Your task to perform on an android device: change the clock style Image 0: 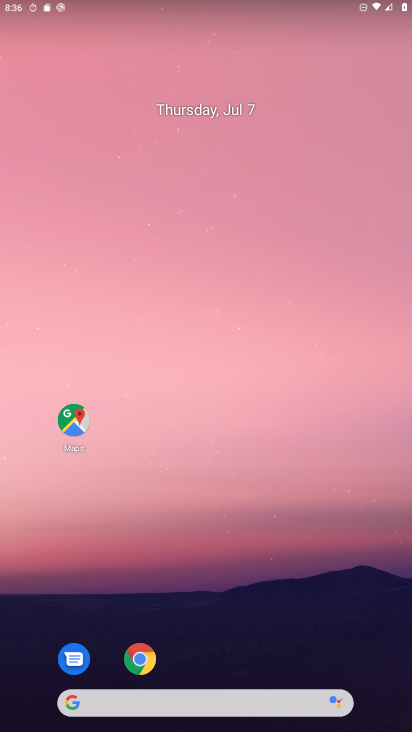
Step 0: drag from (365, 701) to (225, 16)
Your task to perform on an android device: change the clock style Image 1: 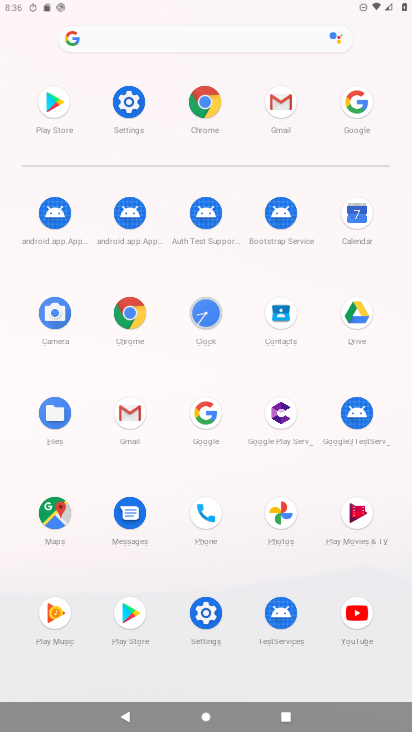
Step 1: click (120, 108)
Your task to perform on an android device: change the clock style Image 2: 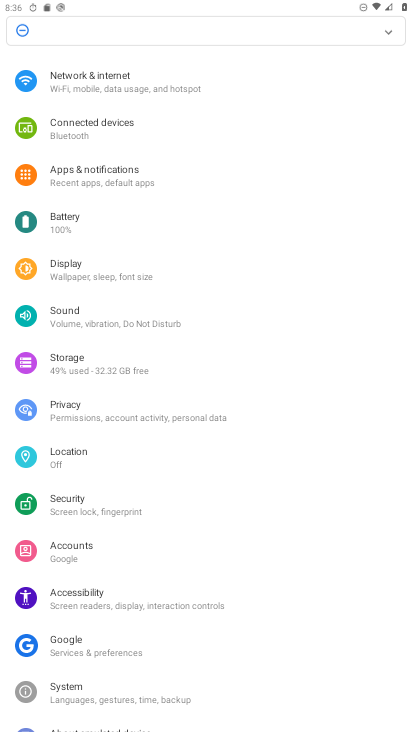
Step 2: press home button
Your task to perform on an android device: change the clock style Image 3: 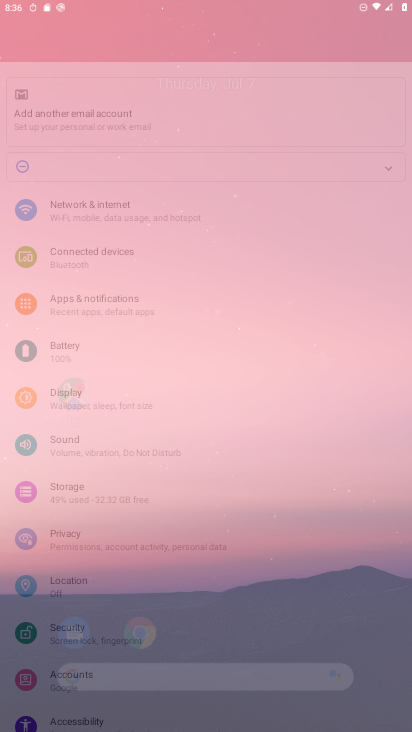
Step 3: drag from (335, 691) to (195, 45)
Your task to perform on an android device: change the clock style Image 4: 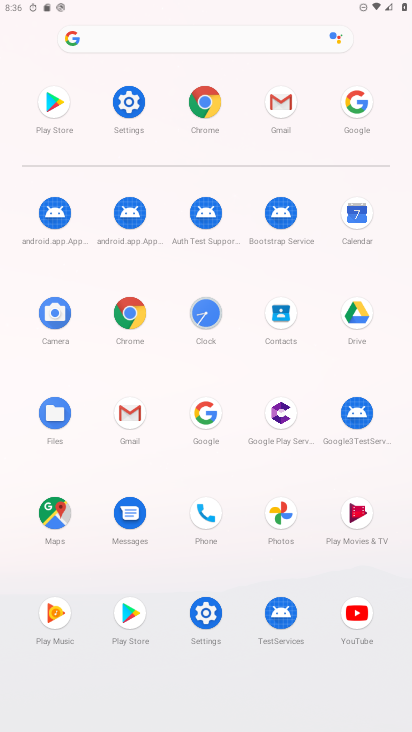
Step 4: click (196, 319)
Your task to perform on an android device: change the clock style Image 5: 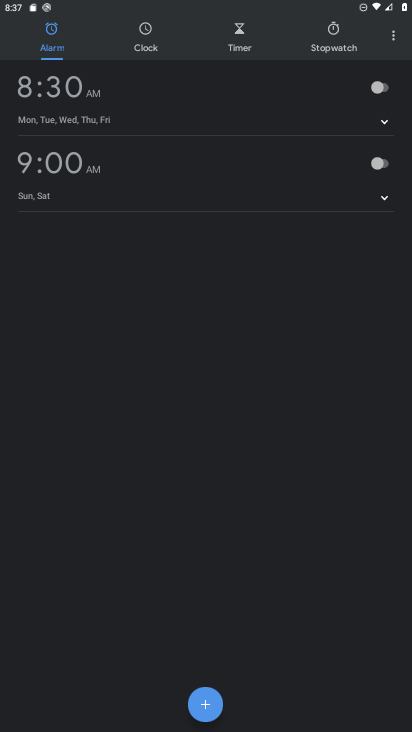
Step 5: click (395, 35)
Your task to perform on an android device: change the clock style Image 6: 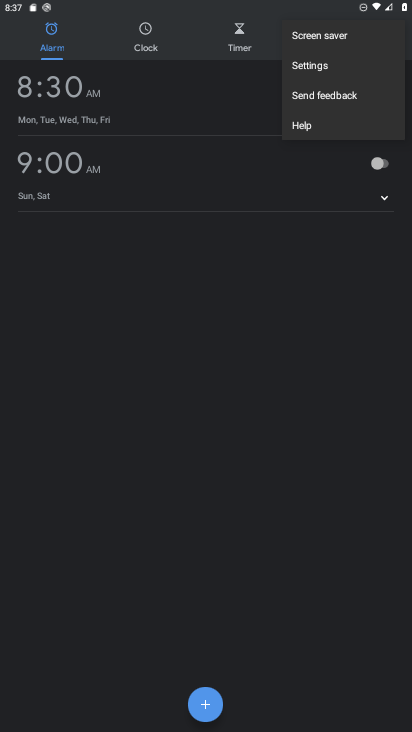
Step 6: click (333, 63)
Your task to perform on an android device: change the clock style Image 7: 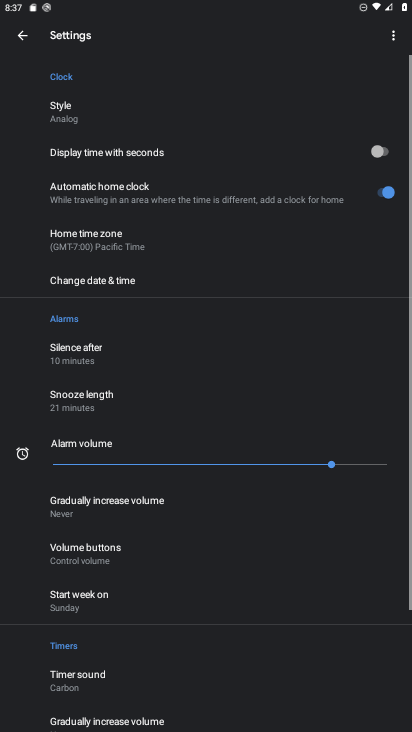
Step 7: click (72, 100)
Your task to perform on an android device: change the clock style Image 8: 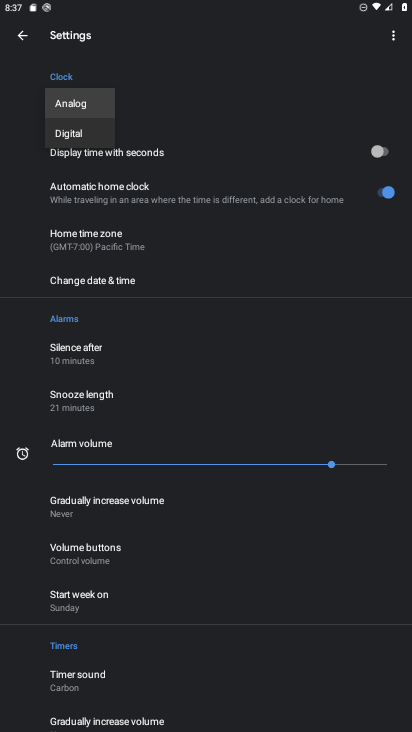
Step 8: click (83, 135)
Your task to perform on an android device: change the clock style Image 9: 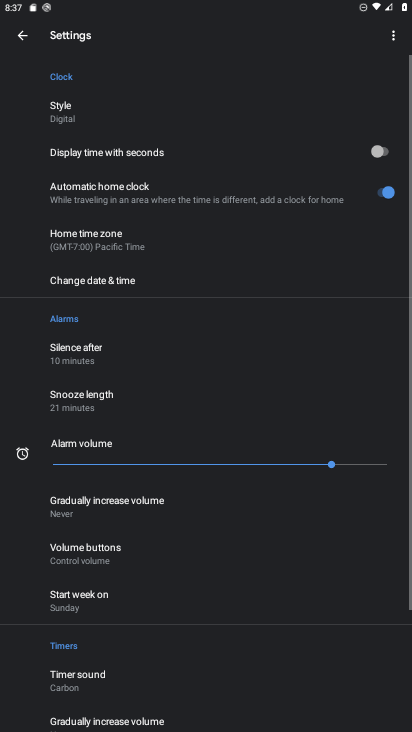
Step 9: task complete